Your task to perform on an android device: check data usage Image 0: 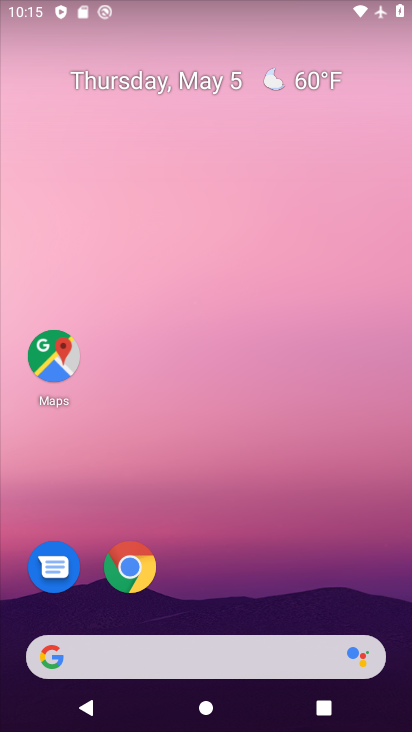
Step 0: drag from (211, 584) to (226, 166)
Your task to perform on an android device: check data usage Image 1: 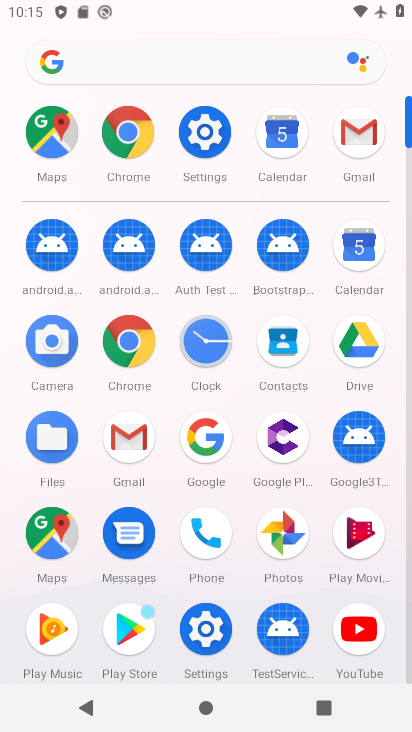
Step 1: click (213, 132)
Your task to perform on an android device: check data usage Image 2: 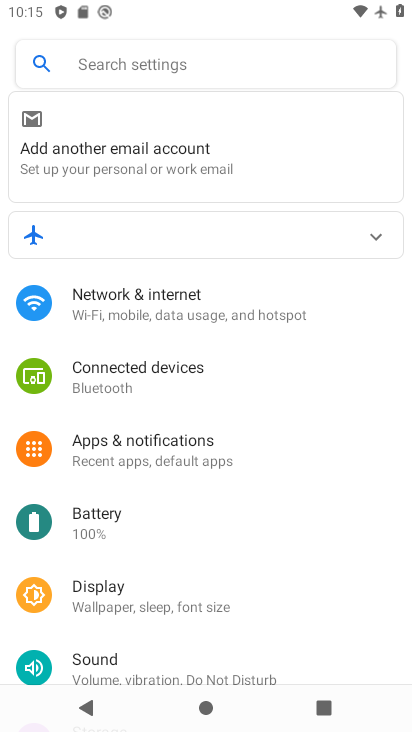
Step 2: click (144, 313)
Your task to perform on an android device: check data usage Image 3: 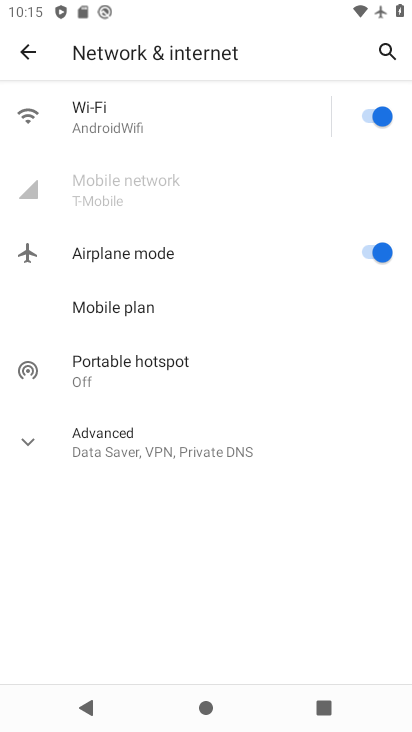
Step 3: click (114, 200)
Your task to perform on an android device: check data usage Image 4: 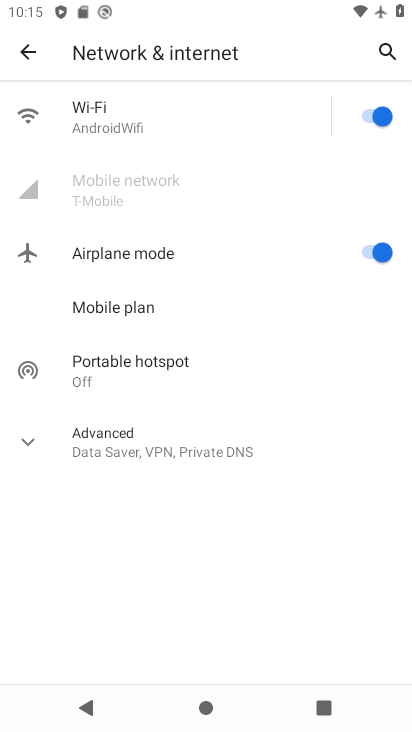
Step 4: task complete